Your task to perform on an android device: When is my next meeting? Image 0: 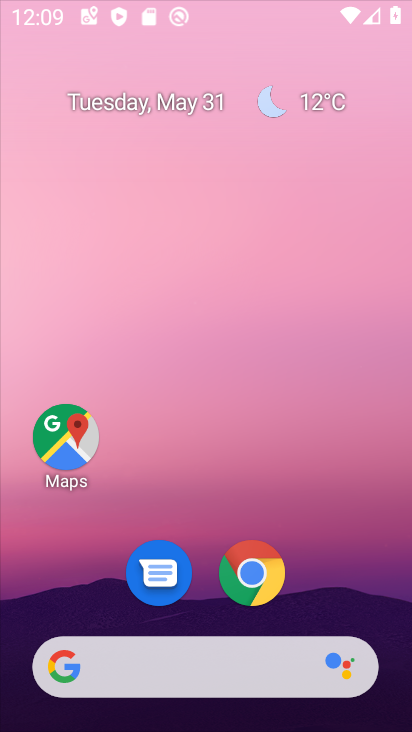
Step 0: click (277, 125)
Your task to perform on an android device: When is my next meeting? Image 1: 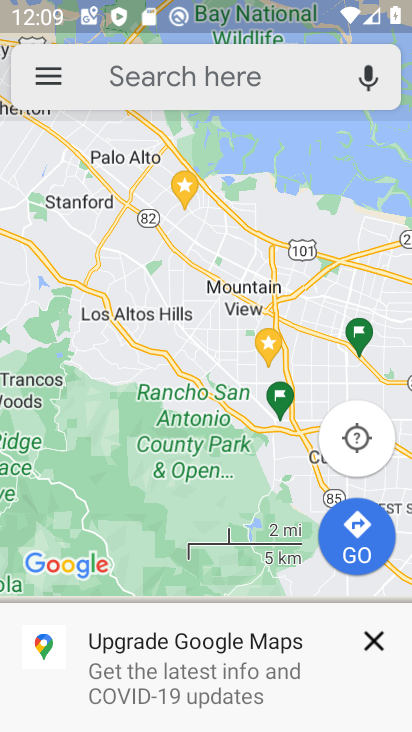
Step 1: press home button
Your task to perform on an android device: When is my next meeting? Image 2: 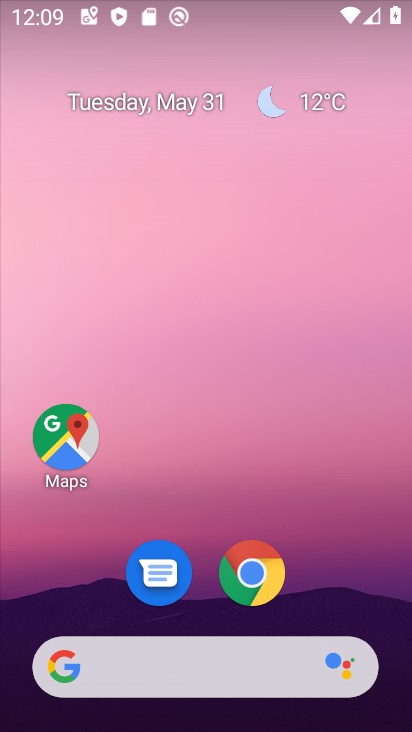
Step 2: drag from (339, 463) to (334, 48)
Your task to perform on an android device: When is my next meeting? Image 3: 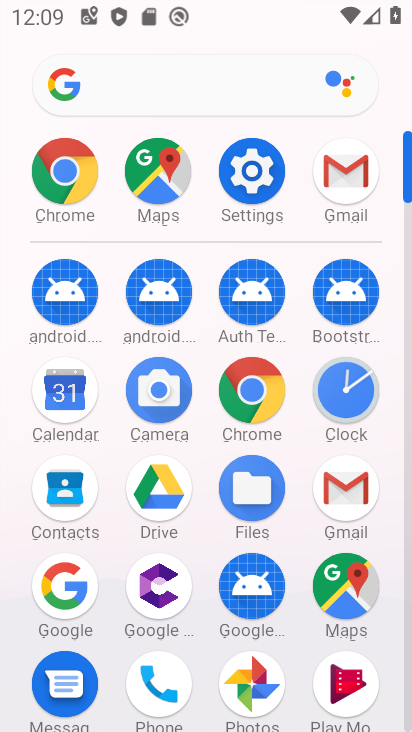
Step 3: click (84, 401)
Your task to perform on an android device: When is my next meeting? Image 4: 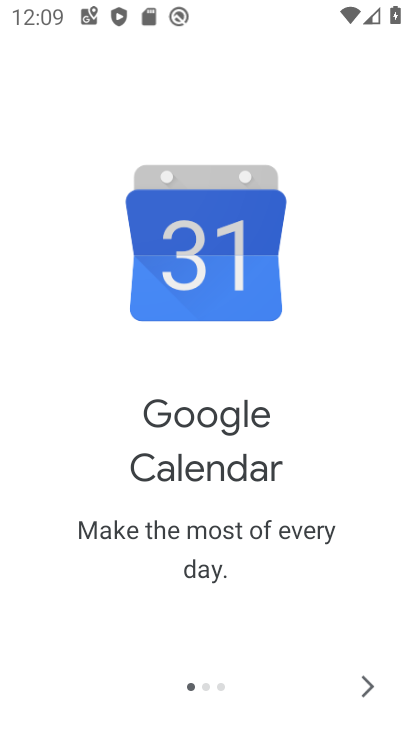
Step 4: click (358, 692)
Your task to perform on an android device: When is my next meeting? Image 5: 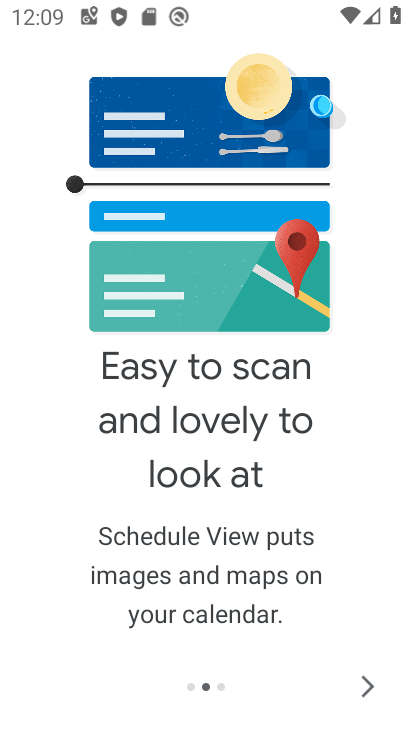
Step 5: click (358, 692)
Your task to perform on an android device: When is my next meeting? Image 6: 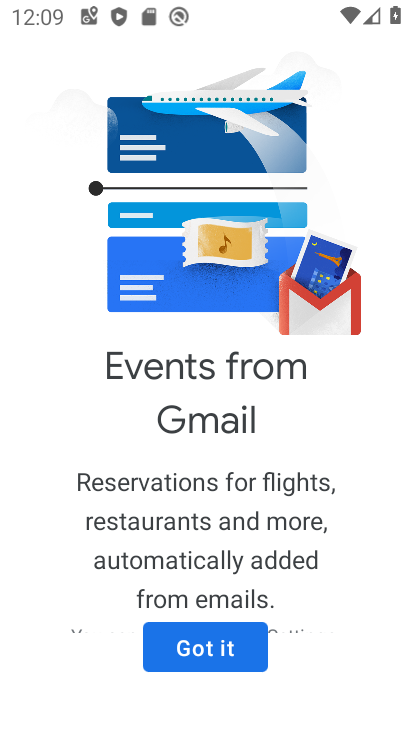
Step 6: click (194, 663)
Your task to perform on an android device: When is my next meeting? Image 7: 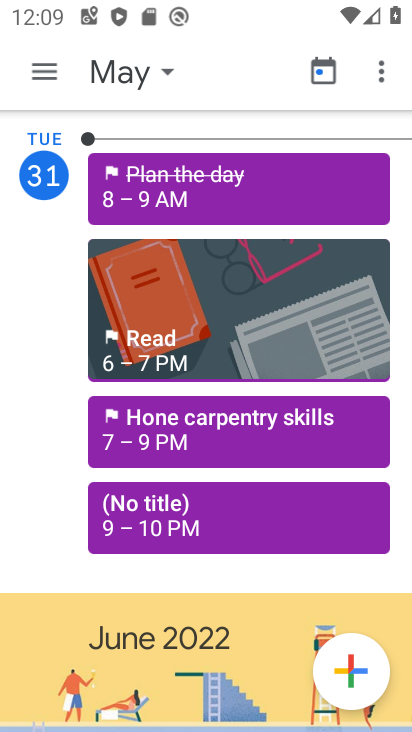
Step 7: click (126, 83)
Your task to perform on an android device: When is my next meeting? Image 8: 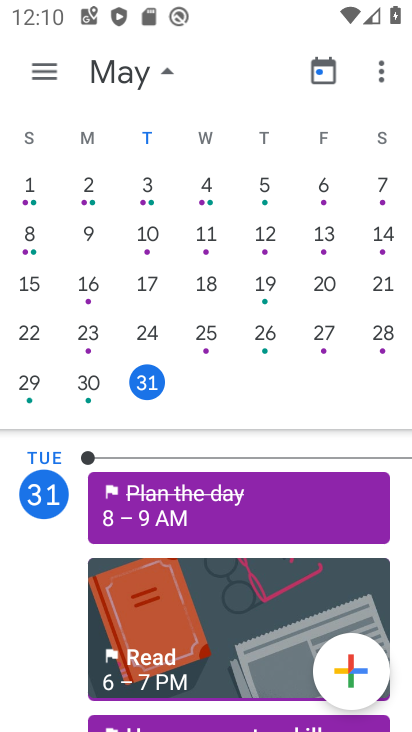
Step 8: task complete